Your task to perform on an android device: Add macbook pro 15 inch to the cart on newegg.com, then select checkout. Image 0: 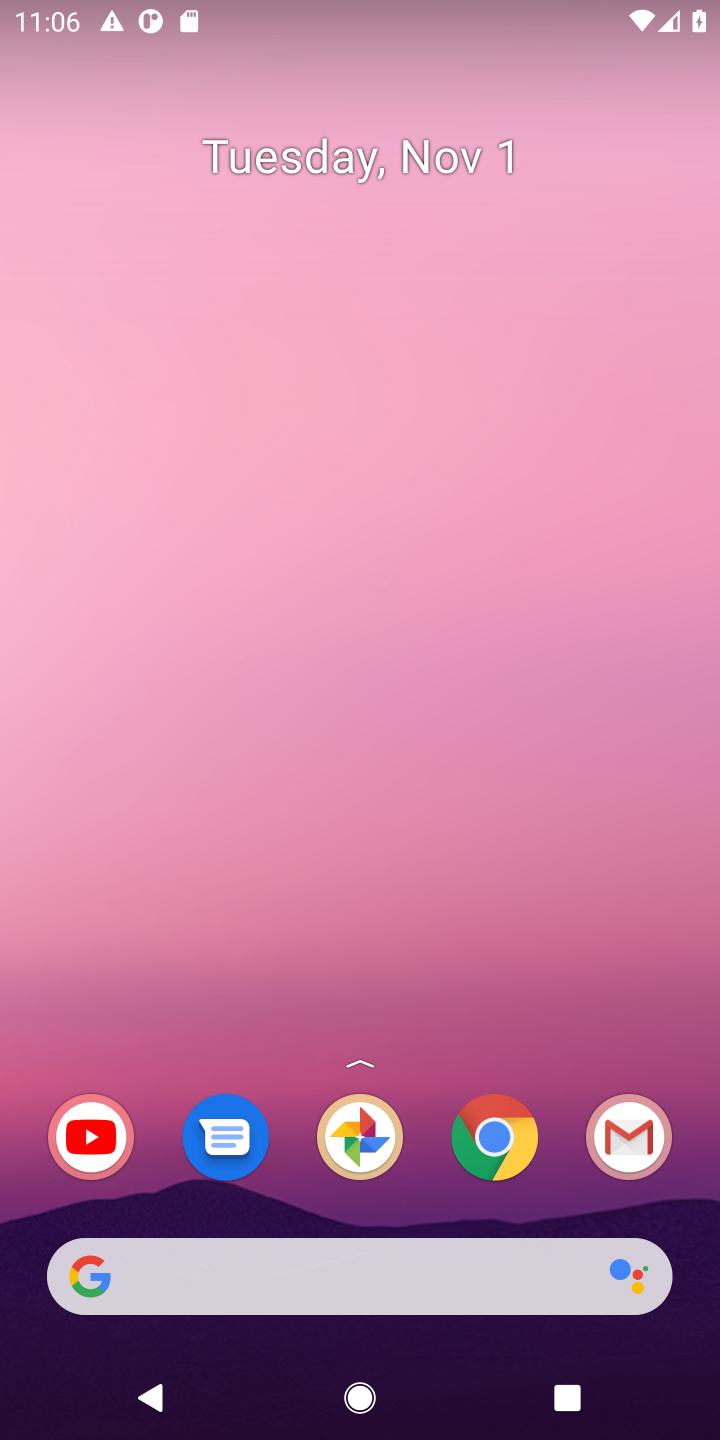
Step 0: click (305, 1241)
Your task to perform on an android device: Add macbook pro 15 inch to the cart on newegg.com, then select checkout. Image 1: 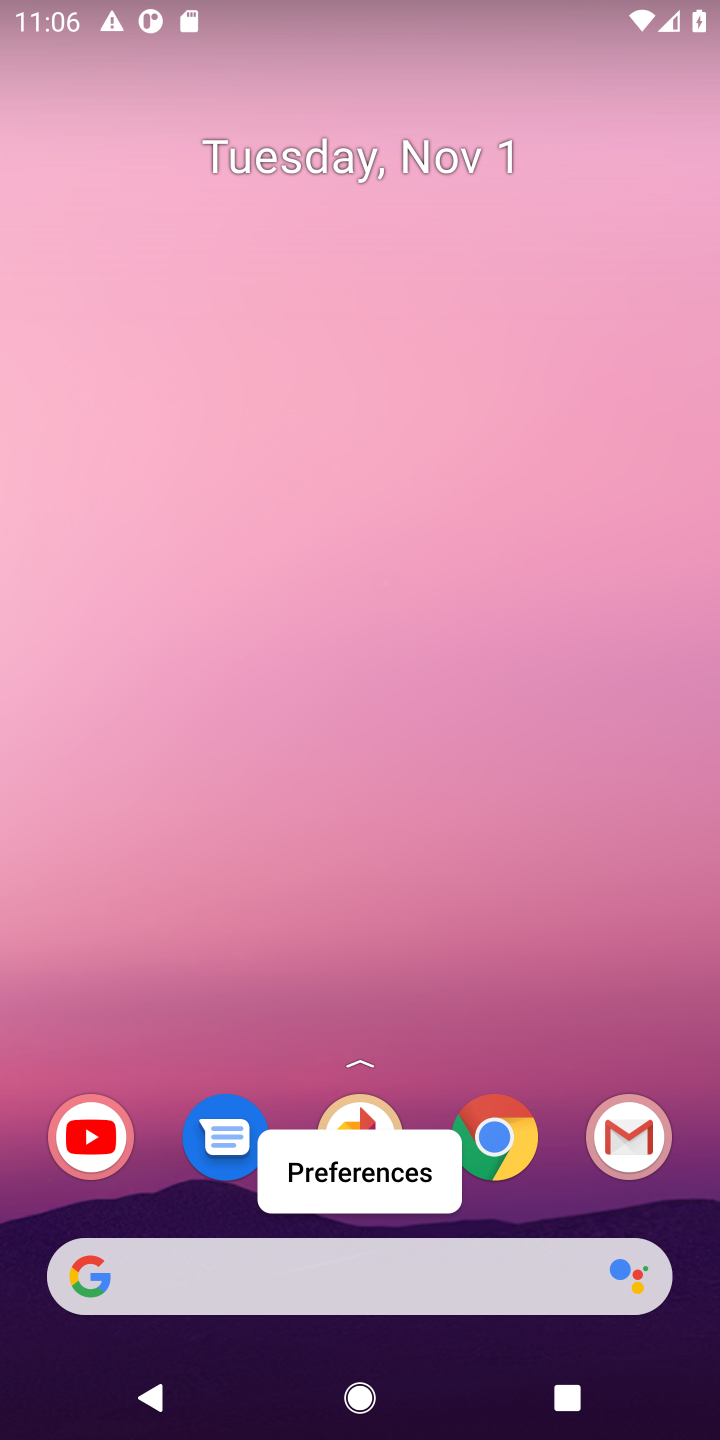
Step 1: click (286, 1258)
Your task to perform on an android device: Add macbook pro 15 inch to the cart on newegg.com, then select checkout. Image 2: 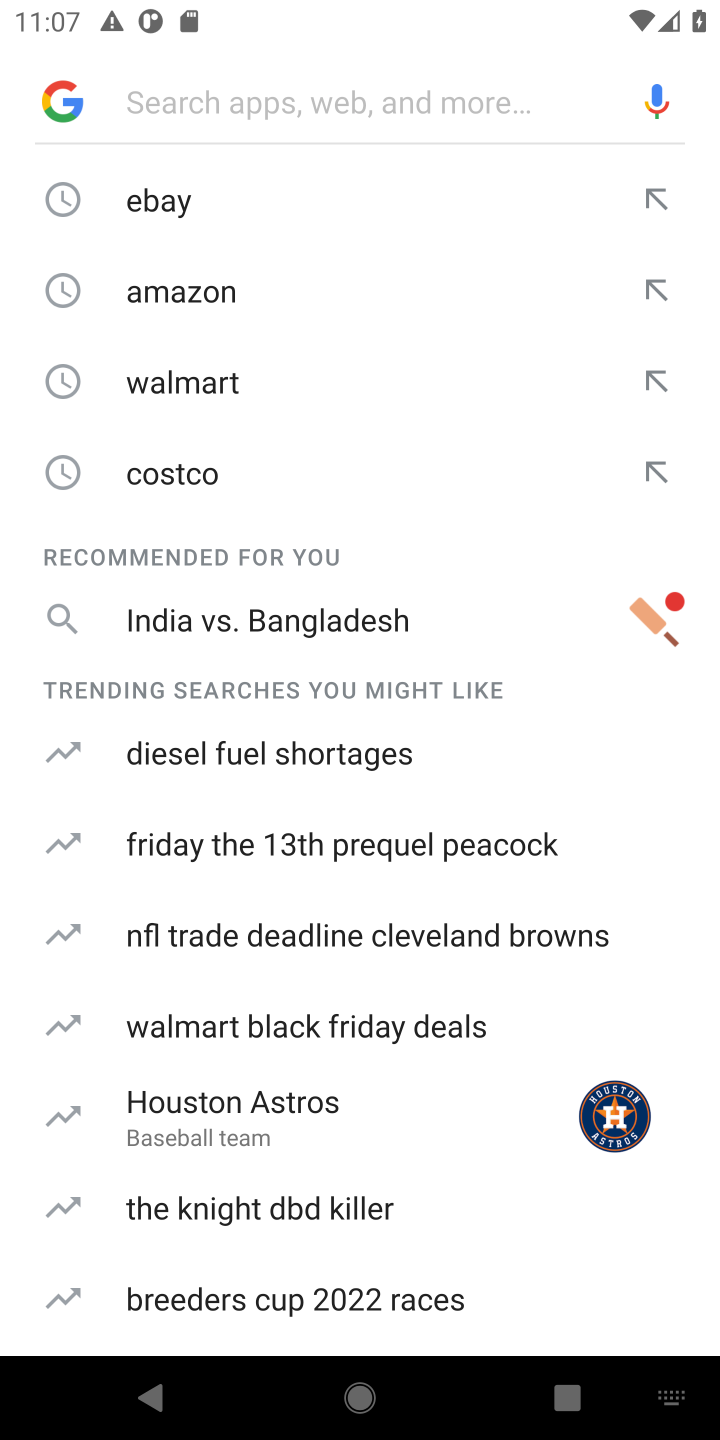
Step 2: type "newegg.com,"
Your task to perform on an android device: Add macbook pro 15 inch to the cart on newegg.com, then select checkout. Image 3: 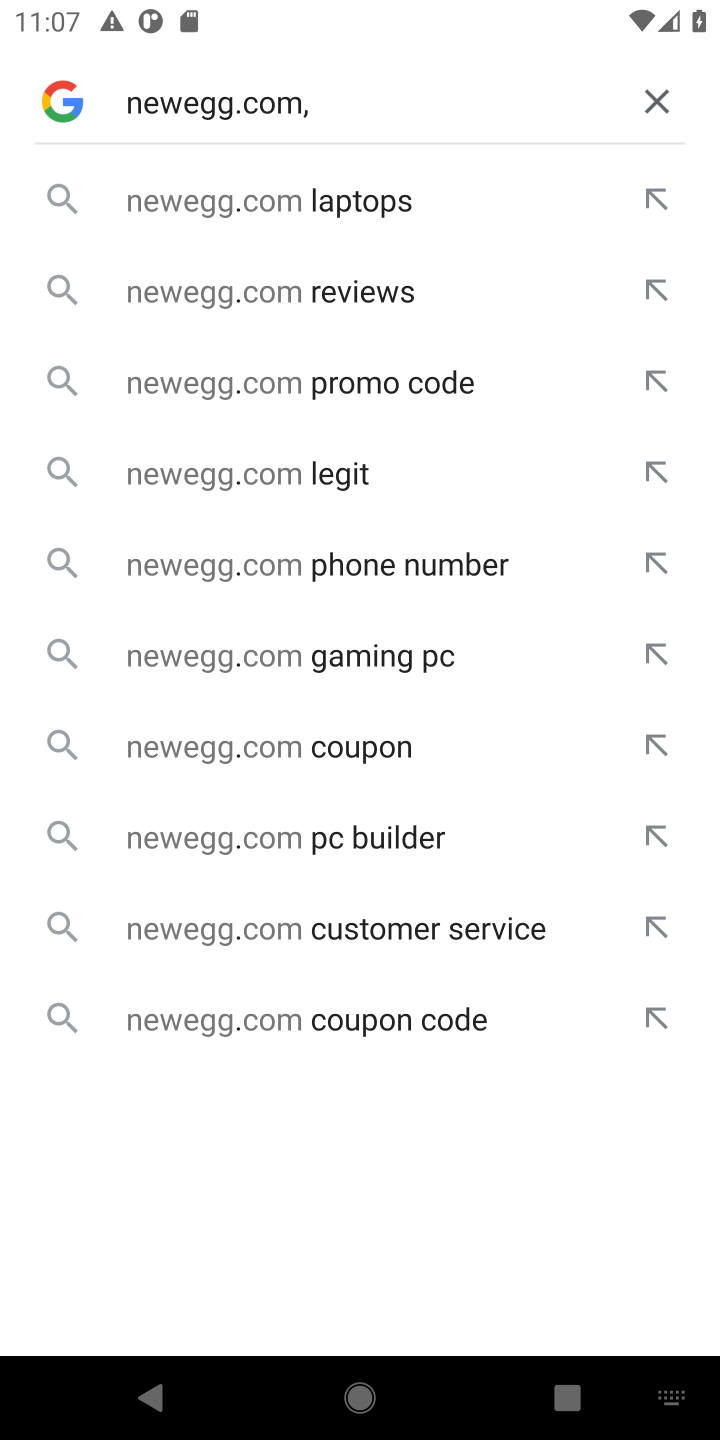
Step 3: click (400, 219)
Your task to perform on an android device: Add macbook pro 15 inch to the cart on newegg.com, then select checkout. Image 4: 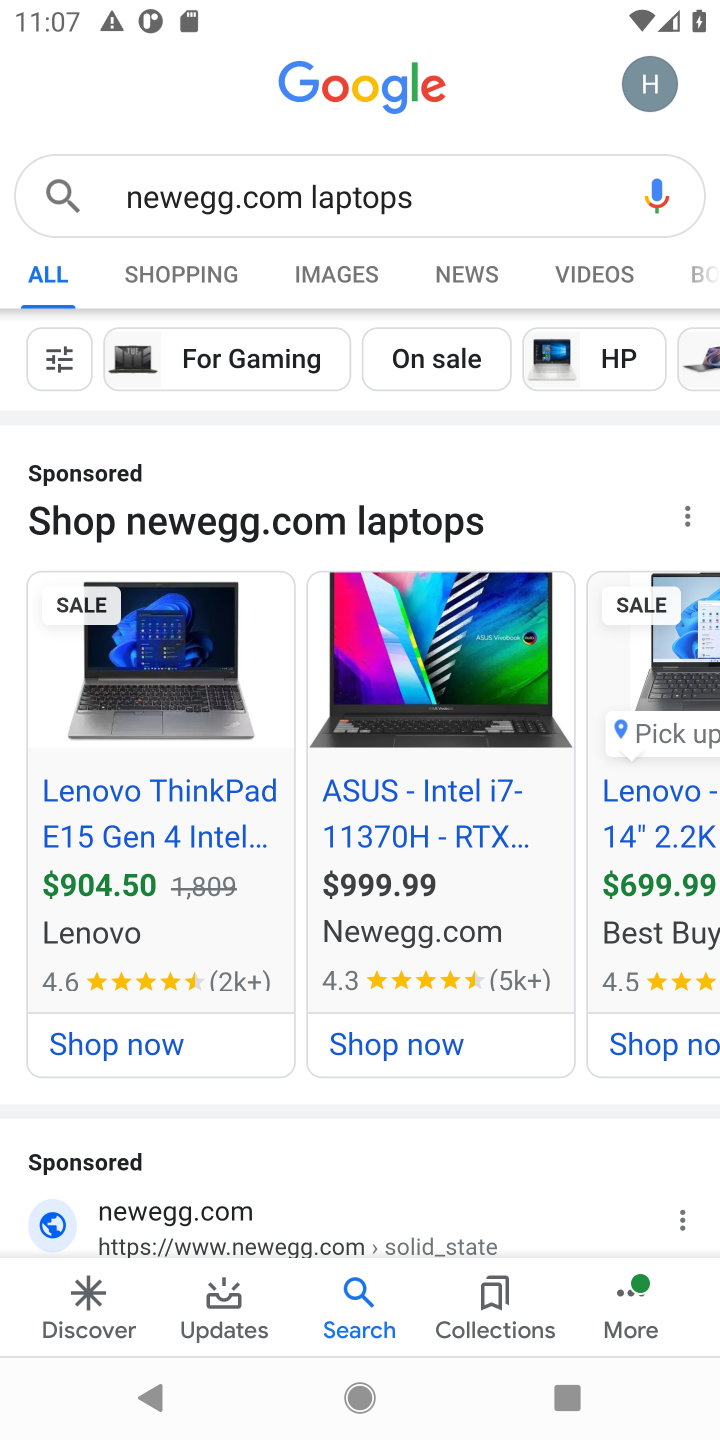
Step 4: click (162, 1218)
Your task to perform on an android device: Add macbook pro 15 inch to the cart on newegg.com, then select checkout. Image 5: 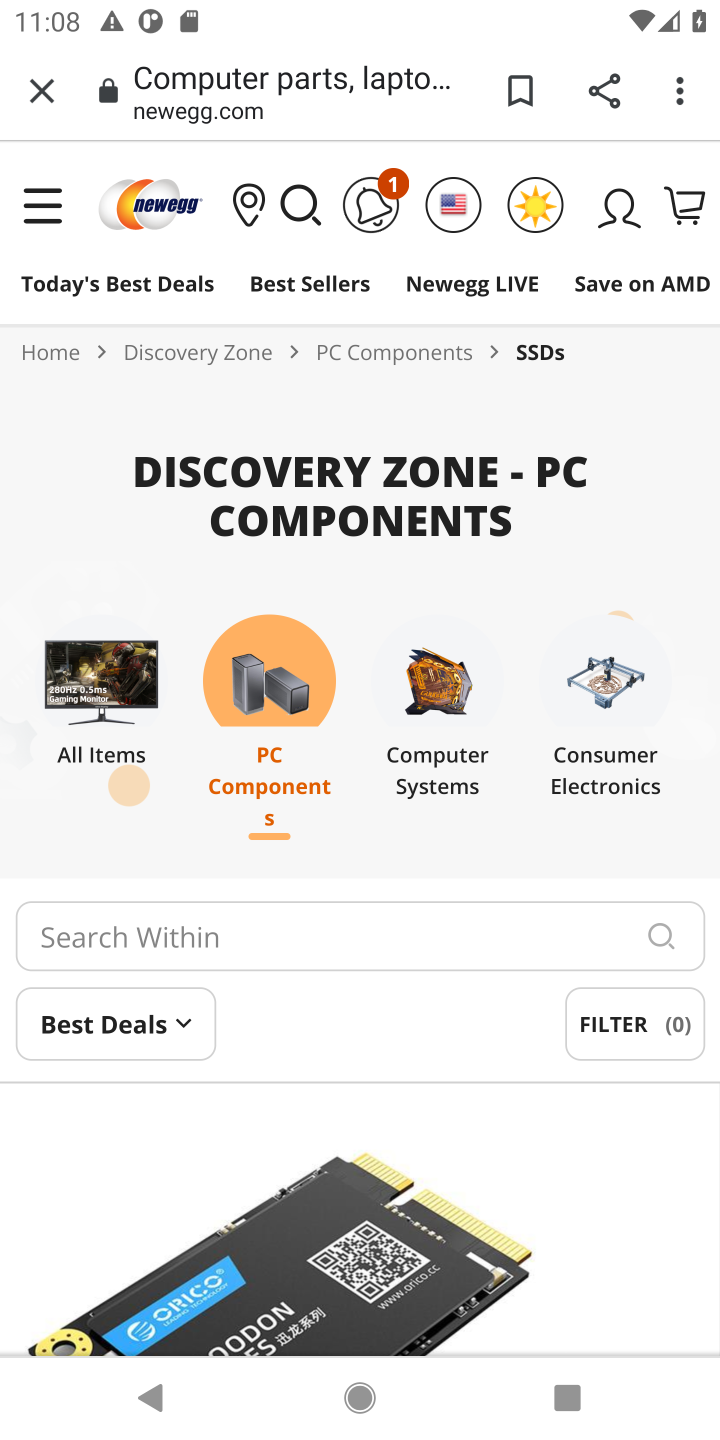
Step 5: click (284, 193)
Your task to perform on an android device: Add macbook pro 15 inch to the cart on newegg.com, then select checkout. Image 6: 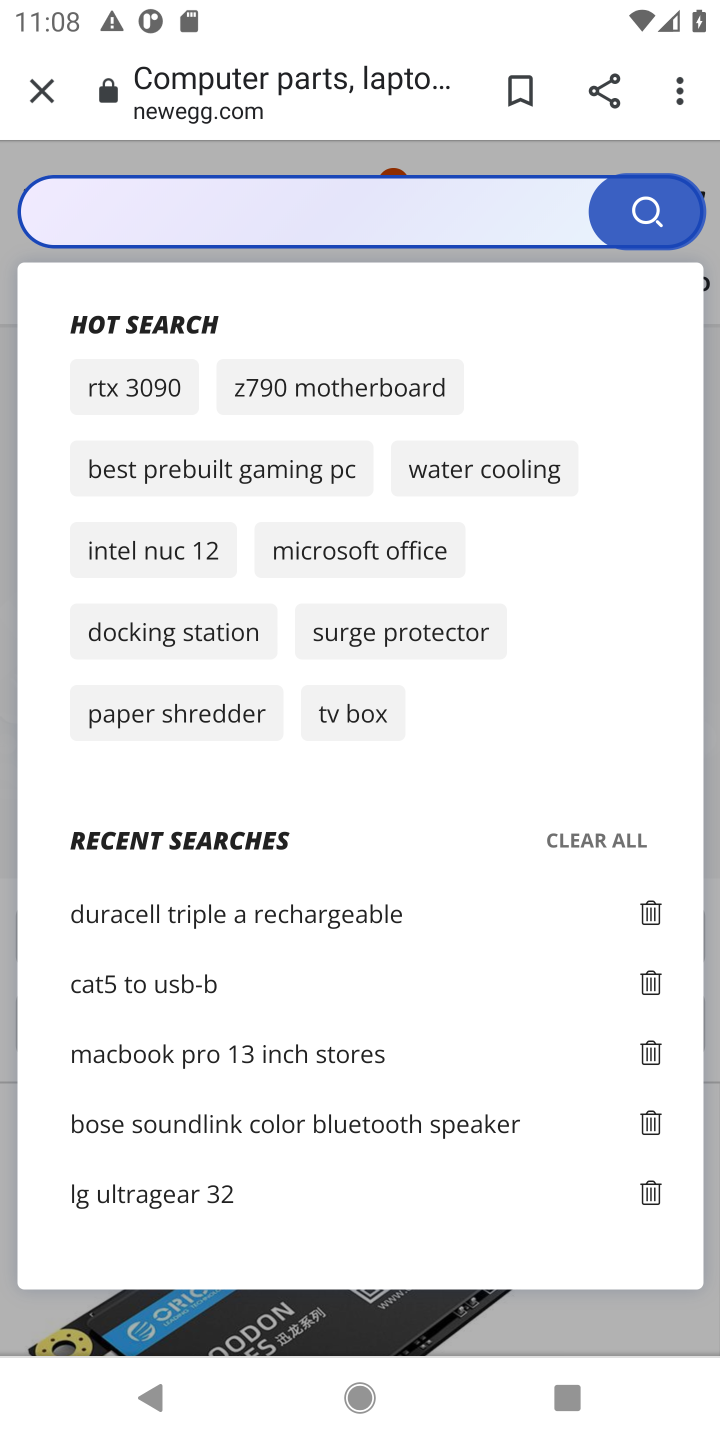
Step 6: click (180, 193)
Your task to perform on an android device: Add macbook pro 15 inch to the cart on newegg.com, then select checkout. Image 7: 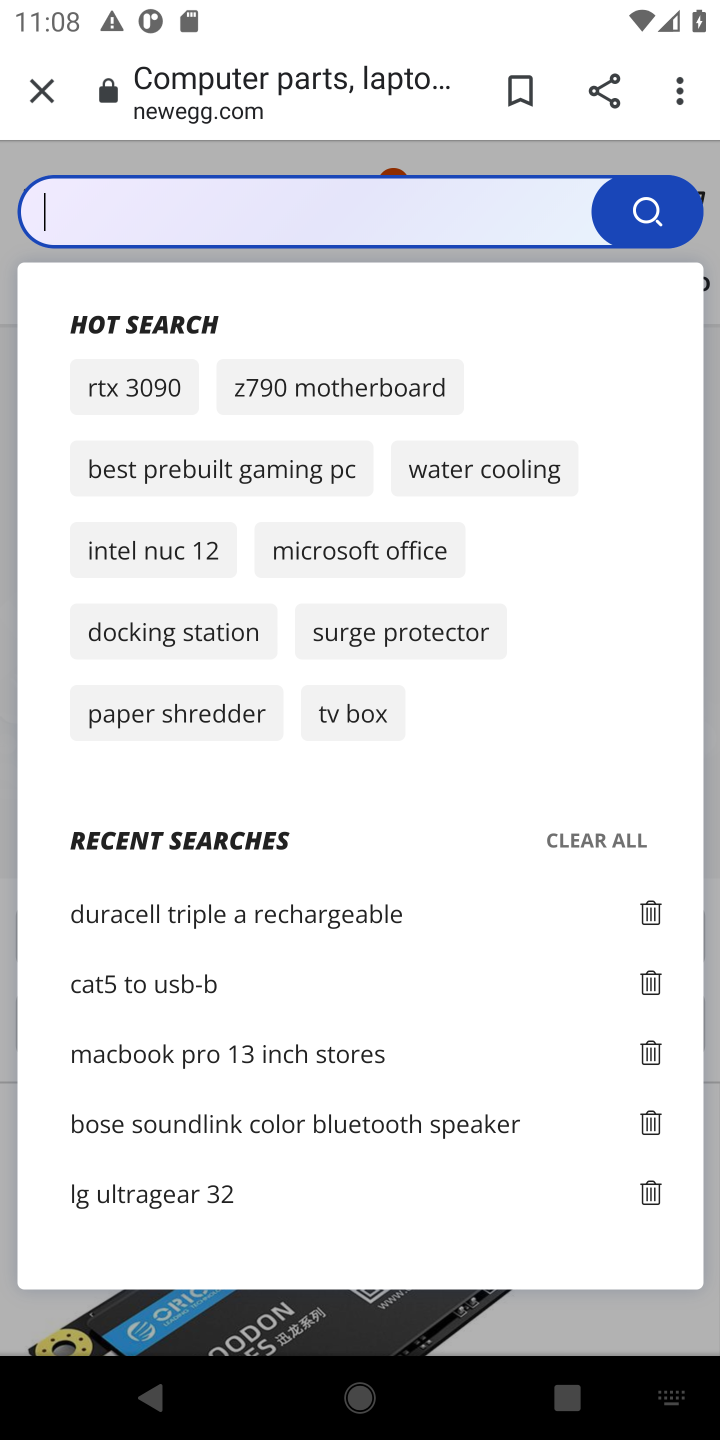
Step 7: type "macbook pro 15 inch "
Your task to perform on an android device: Add macbook pro 15 inch to the cart on newegg.com, then select checkout. Image 8: 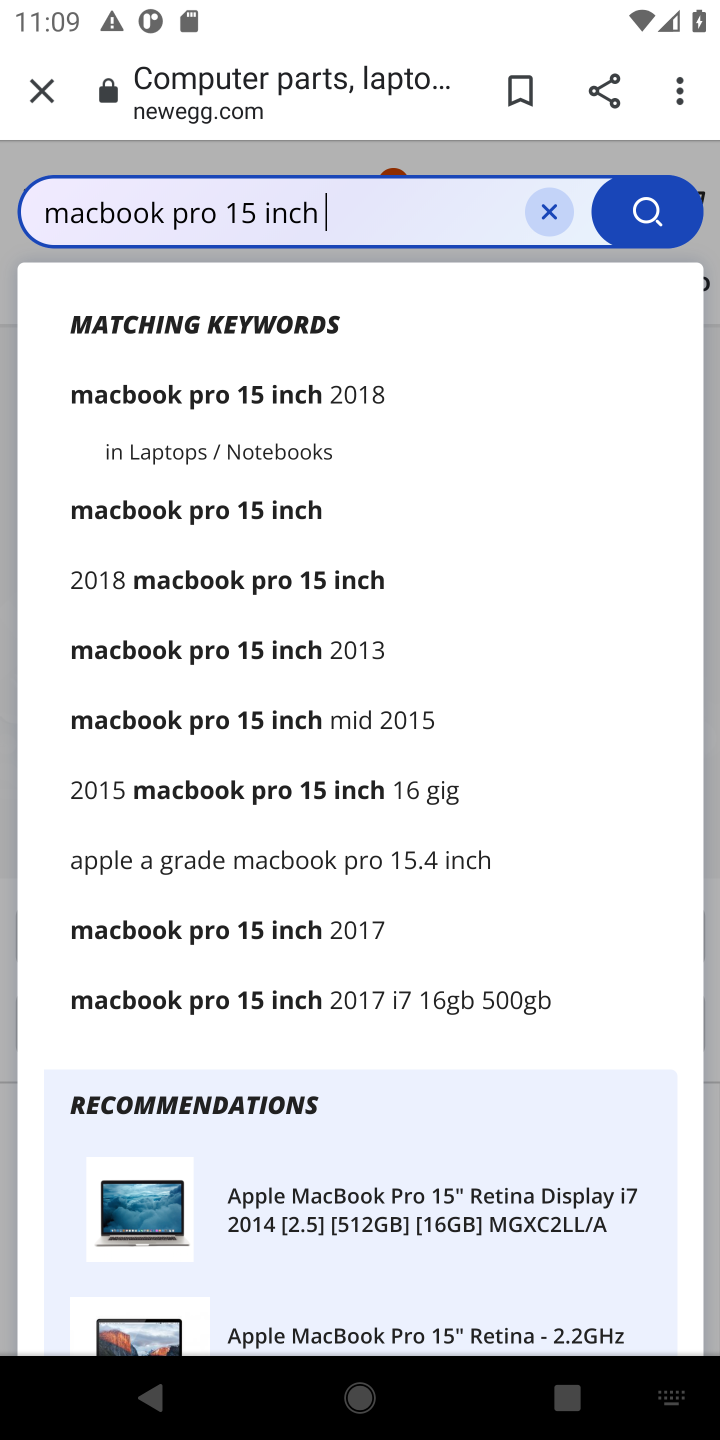
Step 8: click (133, 441)
Your task to perform on an android device: Add macbook pro 15 inch to the cart on newegg.com, then select checkout. Image 9: 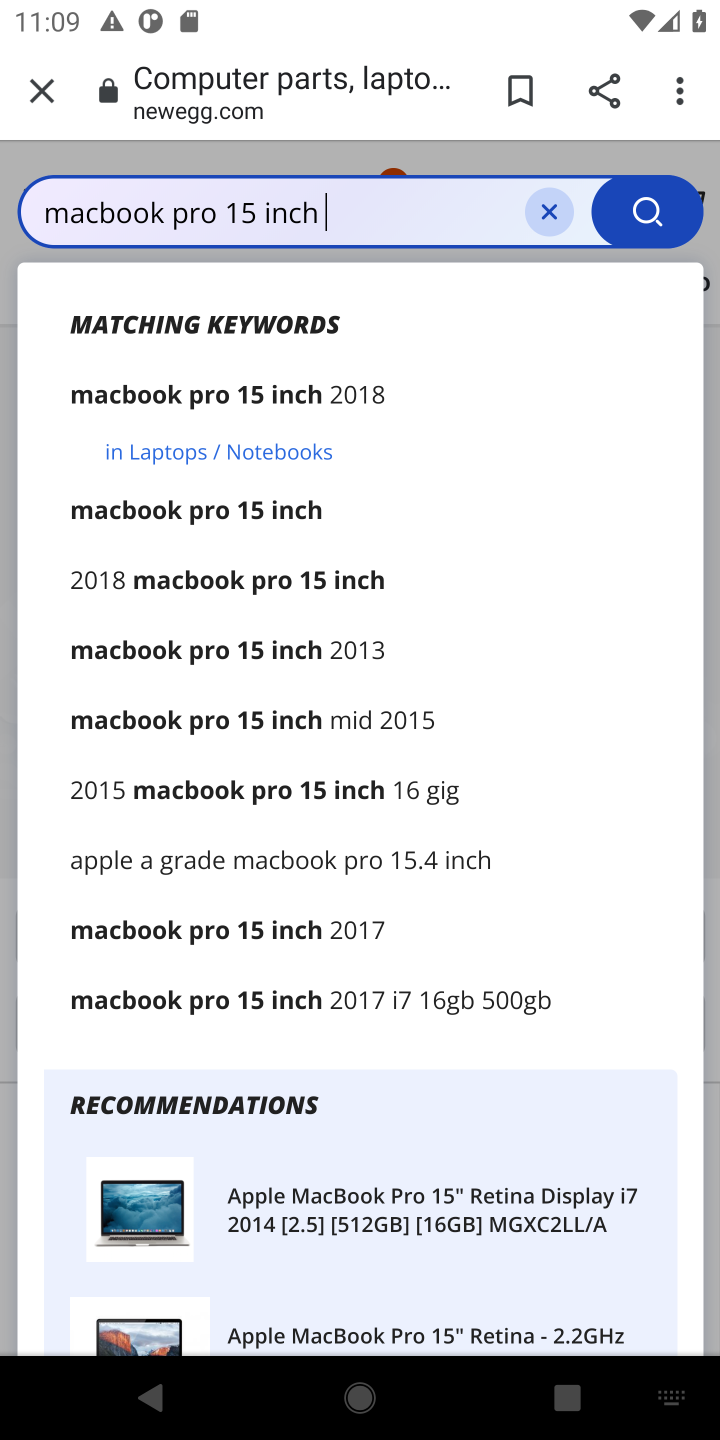
Step 9: click (161, 458)
Your task to perform on an android device: Add macbook pro 15 inch to the cart on newegg.com, then select checkout. Image 10: 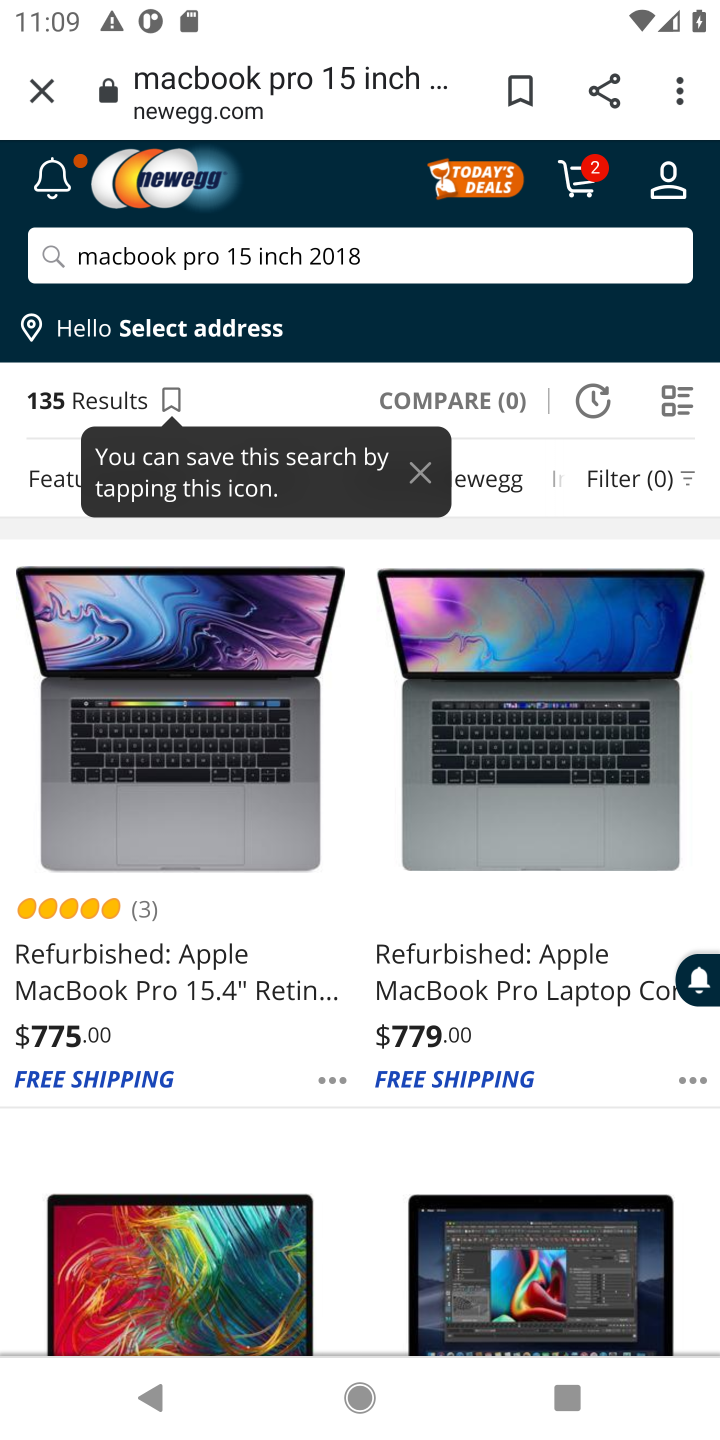
Step 10: click (262, 794)
Your task to perform on an android device: Add macbook pro 15 inch to the cart on newegg.com, then select checkout. Image 11: 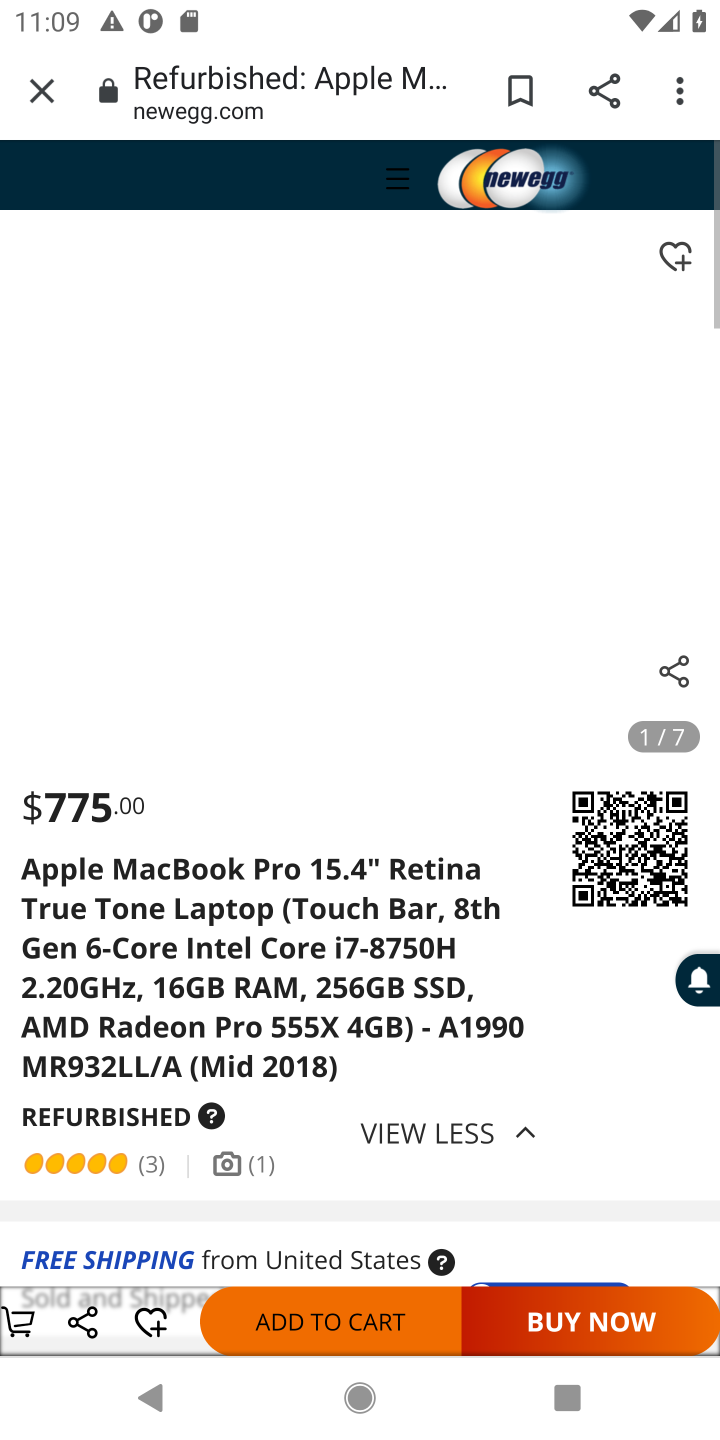
Step 11: click (335, 1333)
Your task to perform on an android device: Add macbook pro 15 inch to the cart on newegg.com, then select checkout. Image 12: 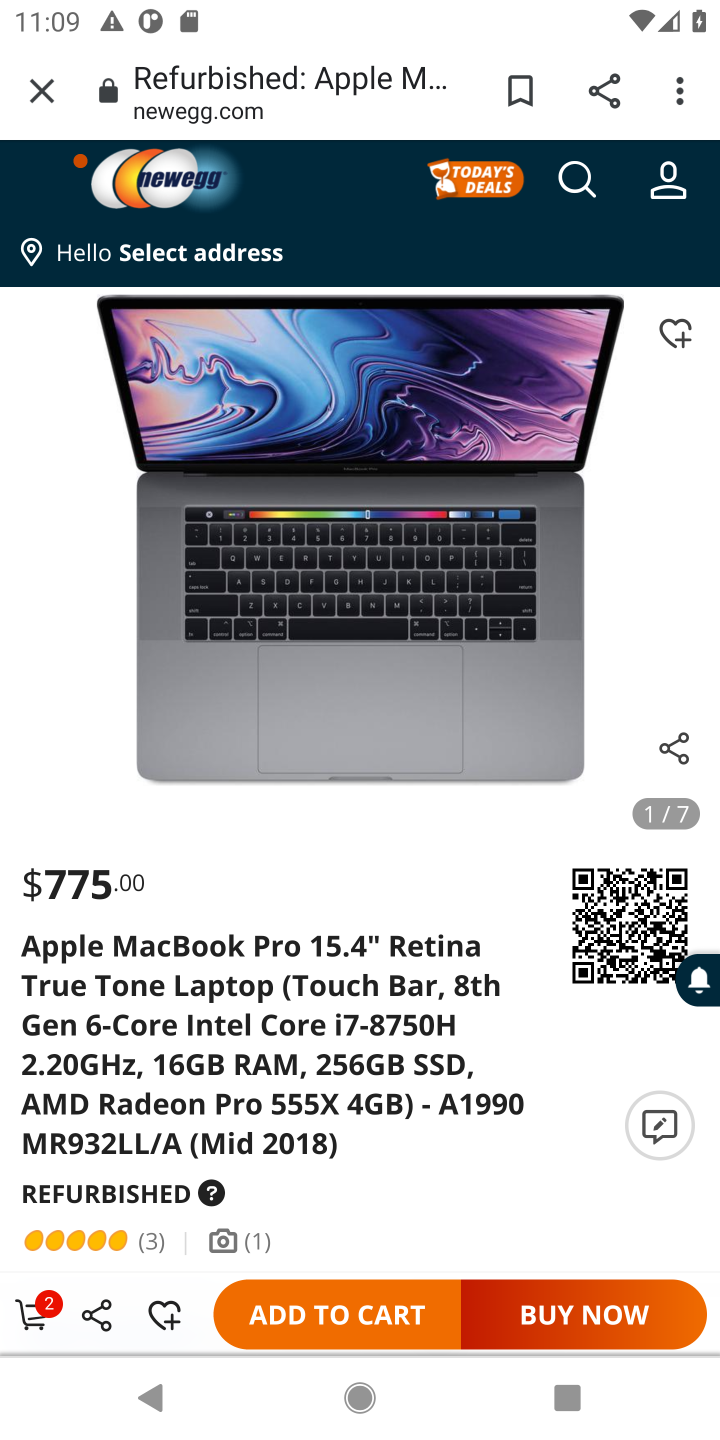
Step 12: click (26, 1319)
Your task to perform on an android device: Add macbook pro 15 inch to the cart on newegg.com, then select checkout. Image 13: 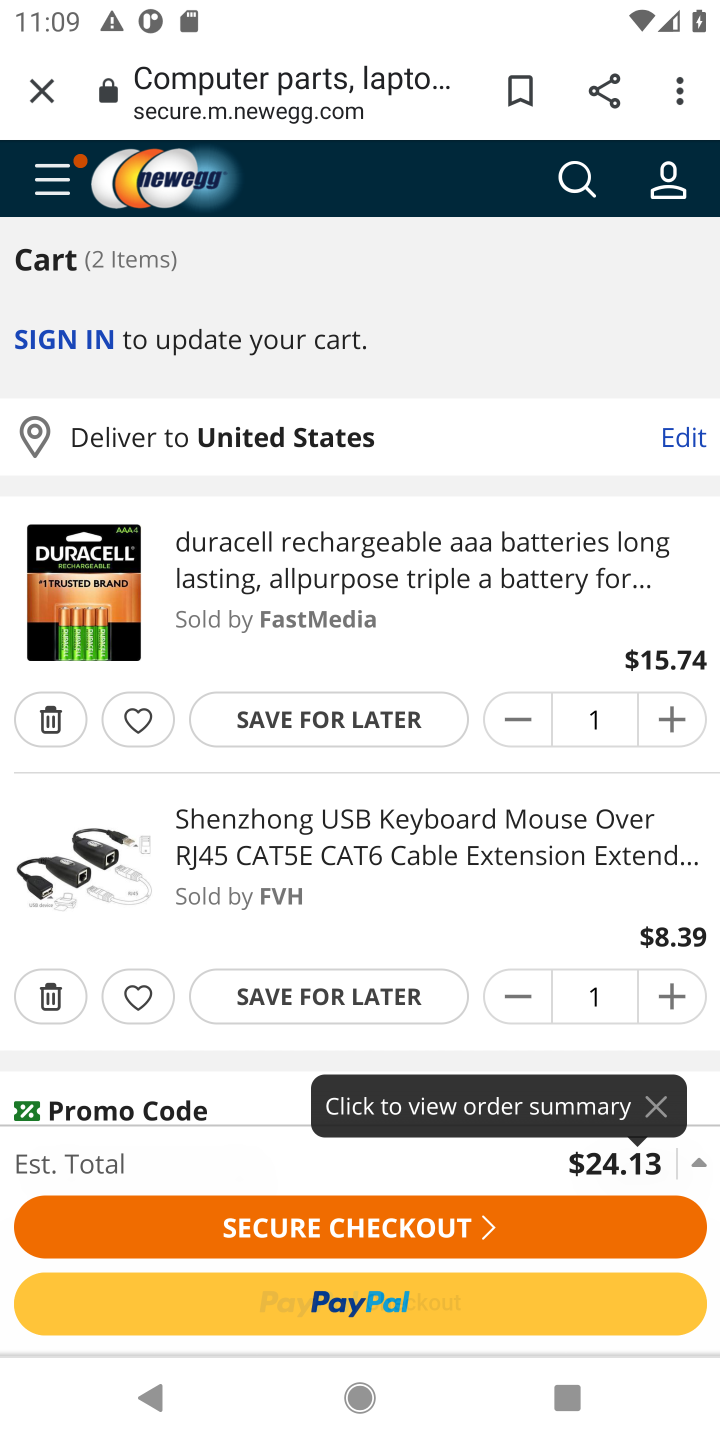
Step 13: click (340, 1232)
Your task to perform on an android device: Add macbook pro 15 inch to the cart on newegg.com, then select checkout. Image 14: 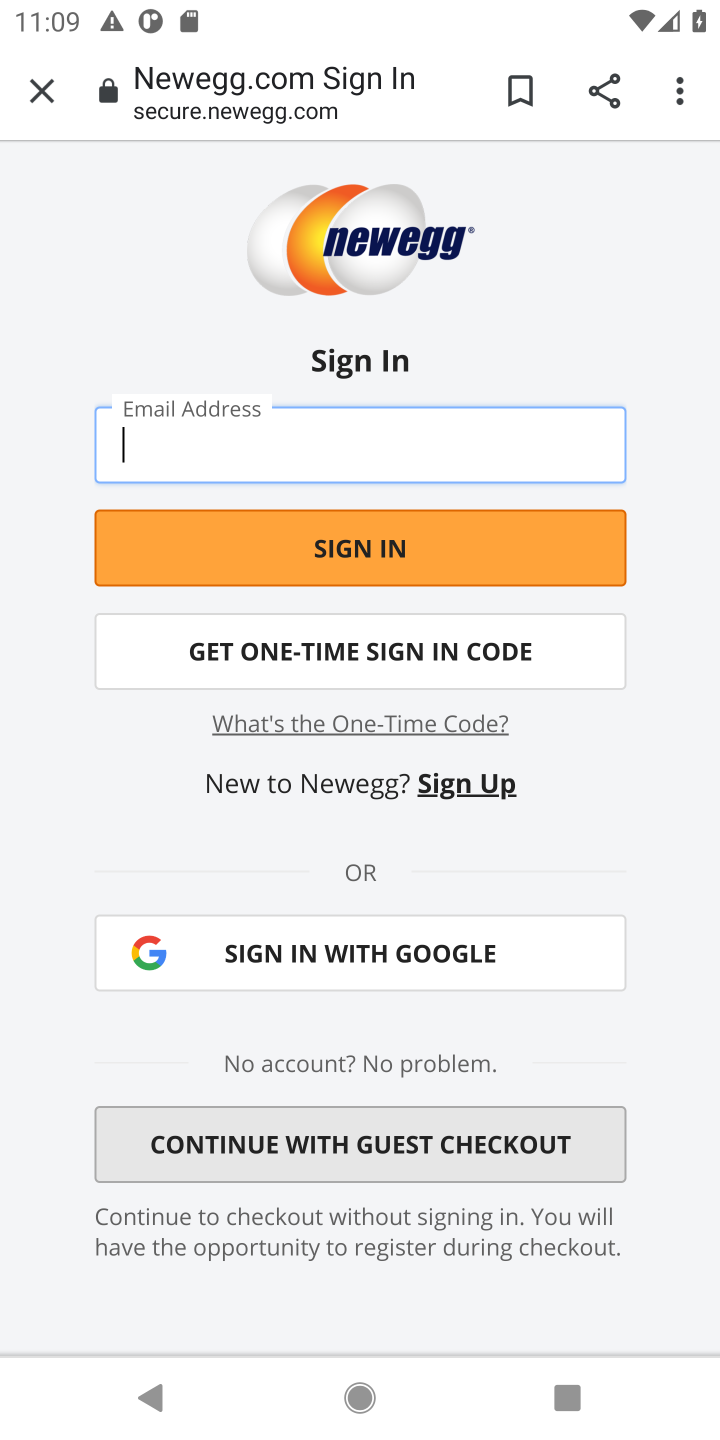
Step 14: task complete